Your task to perform on an android device: Find coffee shops on Maps Image 0: 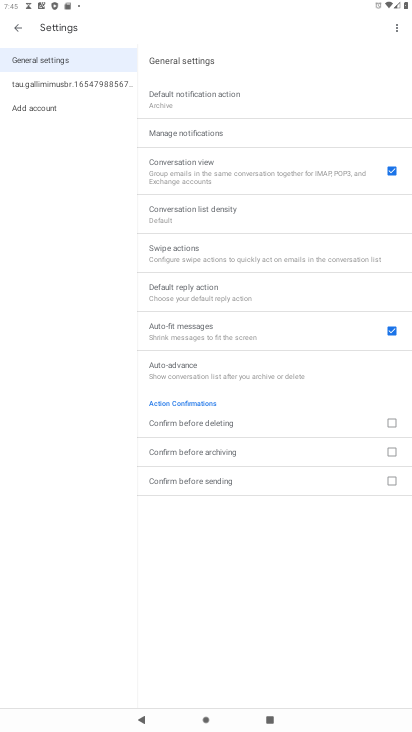
Step 0: press home button
Your task to perform on an android device: Find coffee shops on Maps Image 1: 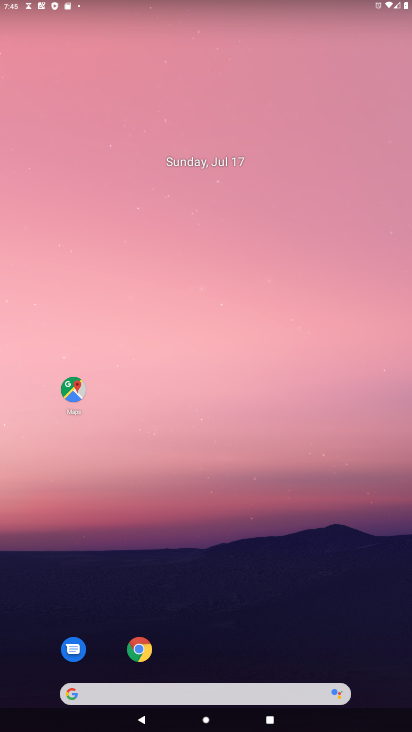
Step 1: click (72, 395)
Your task to perform on an android device: Find coffee shops on Maps Image 2: 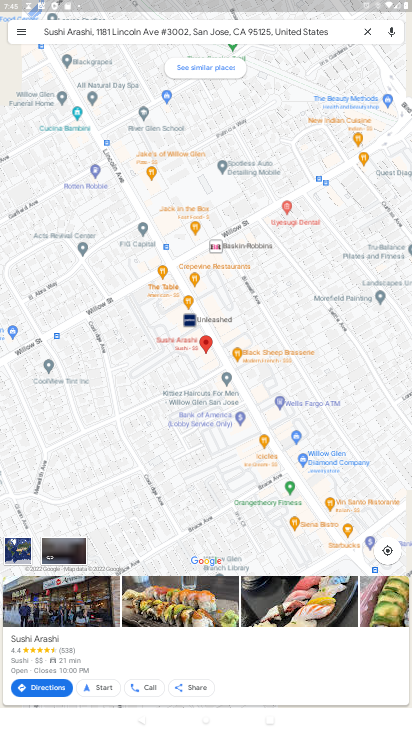
Step 2: click (243, 31)
Your task to perform on an android device: Find coffee shops on Maps Image 3: 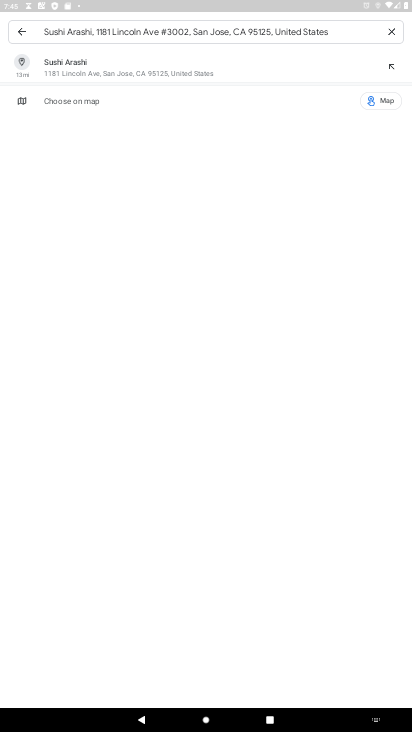
Step 3: click (389, 37)
Your task to perform on an android device: Find coffee shops on Maps Image 4: 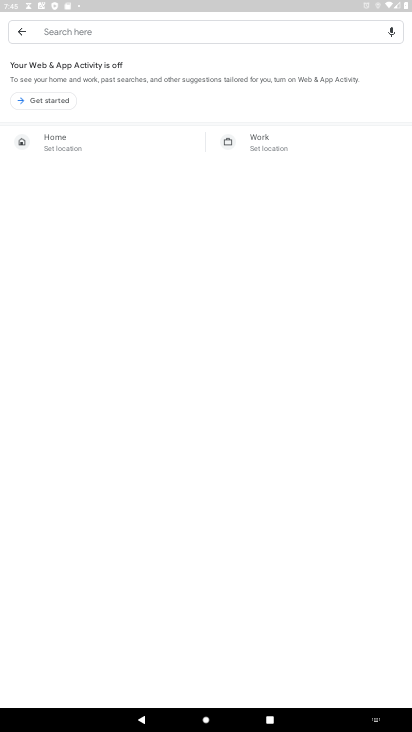
Step 4: type "coffee shops"
Your task to perform on an android device: Find coffee shops on Maps Image 5: 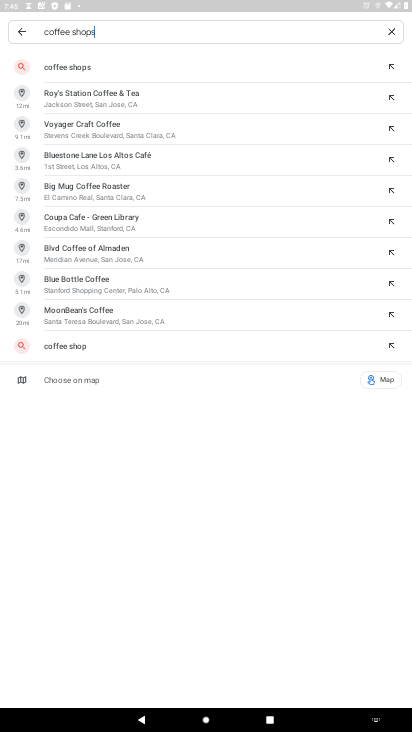
Step 5: click (109, 67)
Your task to perform on an android device: Find coffee shops on Maps Image 6: 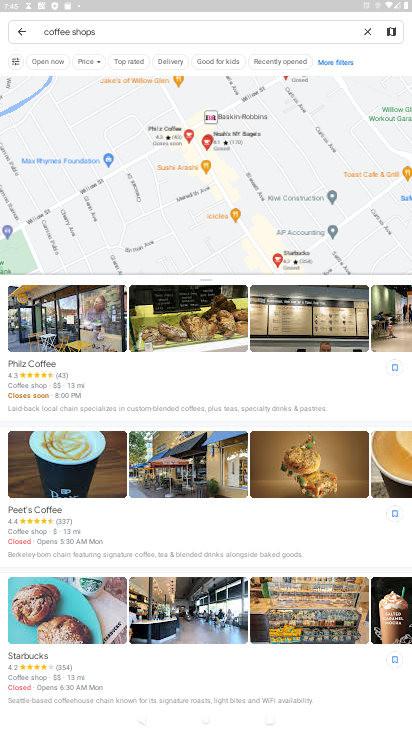
Step 6: task complete